Your task to perform on an android device: turn off airplane mode Image 0: 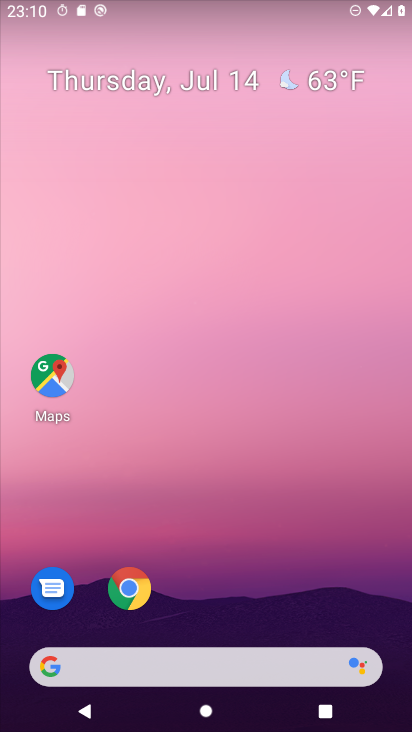
Step 0: drag from (314, 540) to (325, 55)
Your task to perform on an android device: turn off airplane mode Image 1: 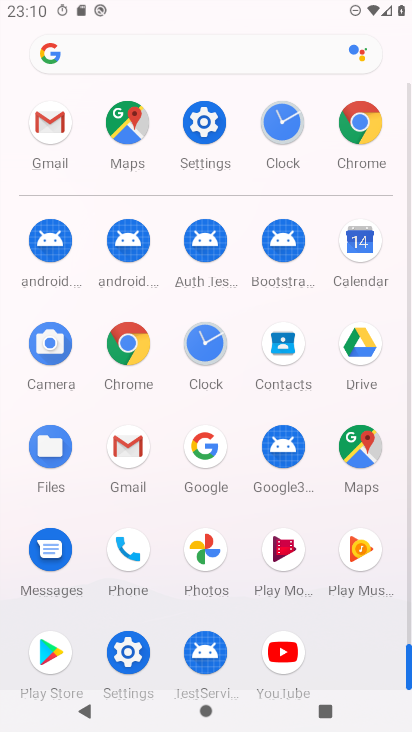
Step 1: click (137, 652)
Your task to perform on an android device: turn off airplane mode Image 2: 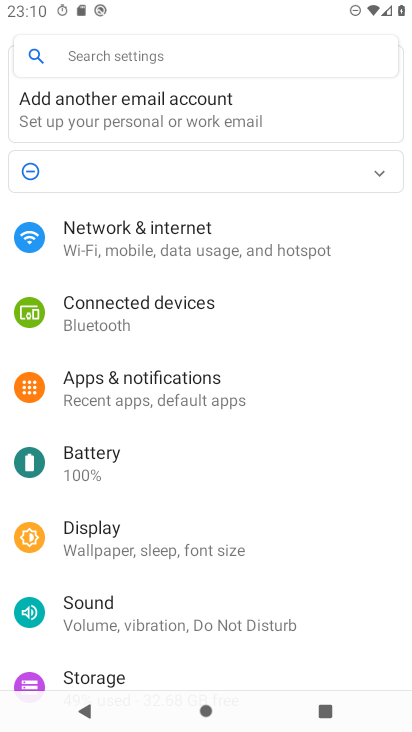
Step 2: drag from (318, 500) to (345, 377)
Your task to perform on an android device: turn off airplane mode Image 3: 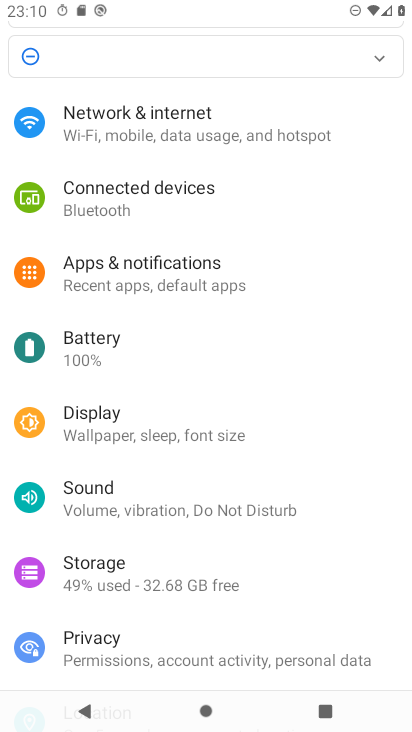
Step 3: drag from (339, 543) to (348, 381)
Your task to perform on an android device: turn off airplane mode Image 4: 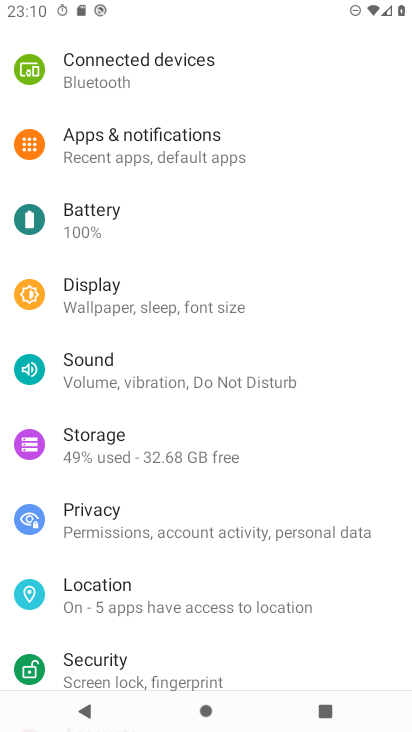
Step 4: drag from (354, 615) to (359, 509)
Your task to perform on an android device: turn off airplane mode Image 5: 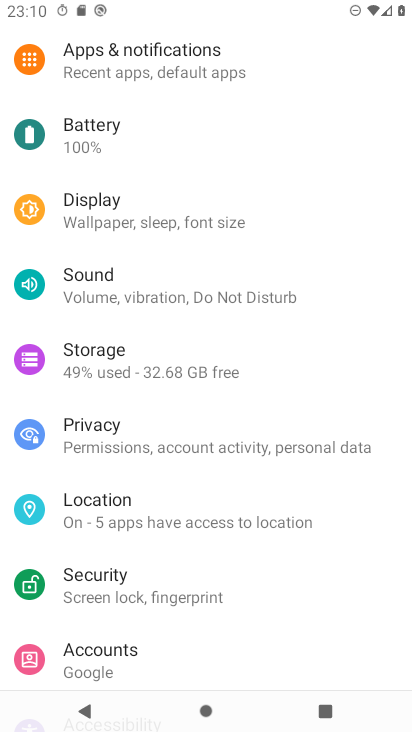
Step 5: drag from (351, 599) to (354, 470)
Your task to perform on an android device: turn off airplane mode Image 6: 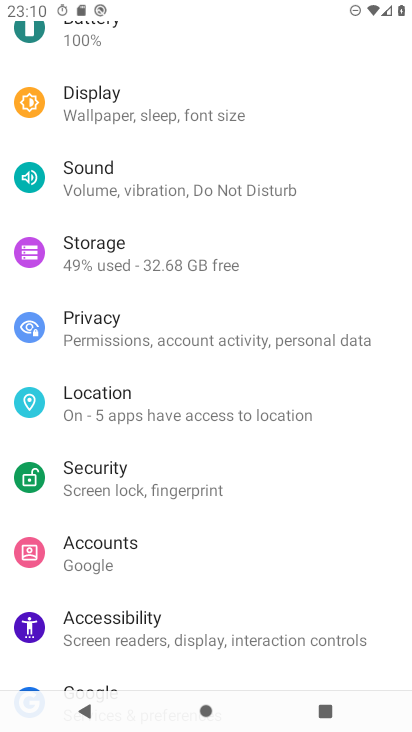
Step 6: drag from (344, 560) to (345, 467)
Your task to perform on an android device: turn off airplane mode Image 7: 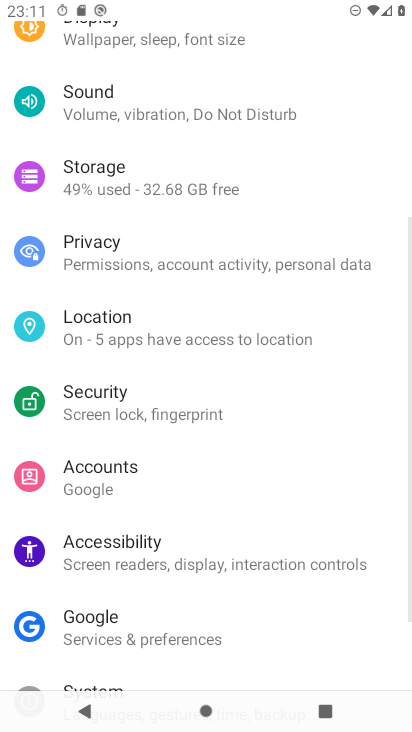
Step 7: drag from (370, 613) to (371, 455)
Your task to perform on an android device: turn off airplane mode Image 8: 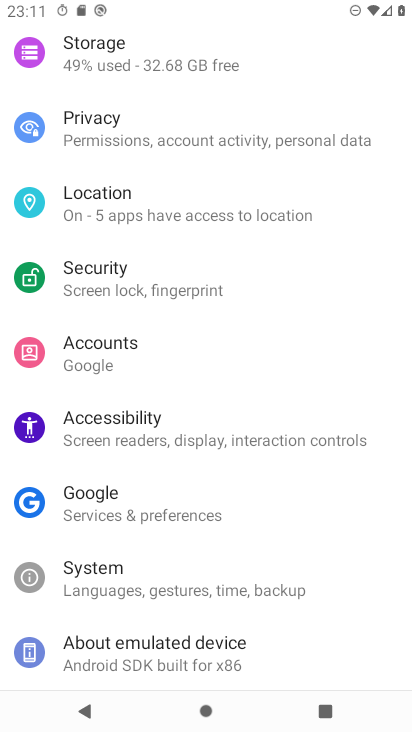
Step 8: drag from (371, 367) to (358, 443)
Your task to perform on an android device: turn off airplane mode Image 9: 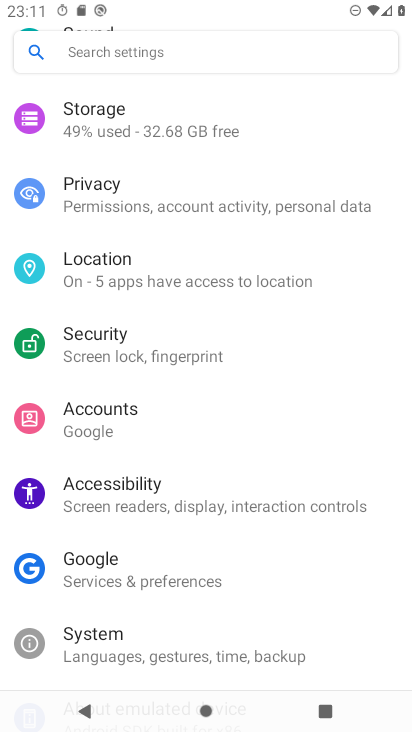
Step 9: drag from (367, 333) to (359, 405)
Your task to perform on an android device: turn off airplane mode Image 10: 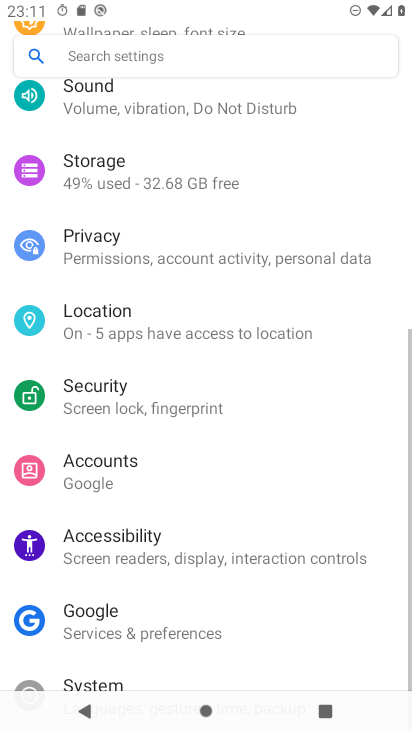
Step 10: drag from (366, 322) to (362, 400)
Your task to perform on an android device: turn off airplane mode Image 11: 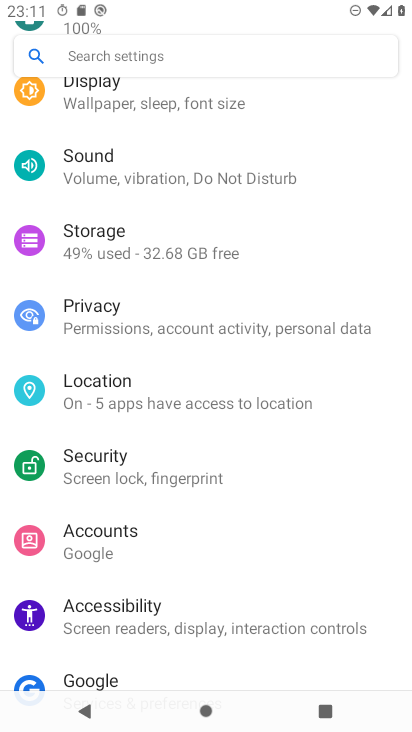
Step 11: drag from (372, 298) to (371, 372)
Your task to perform on an android device: turn off airplane mode Image 12: 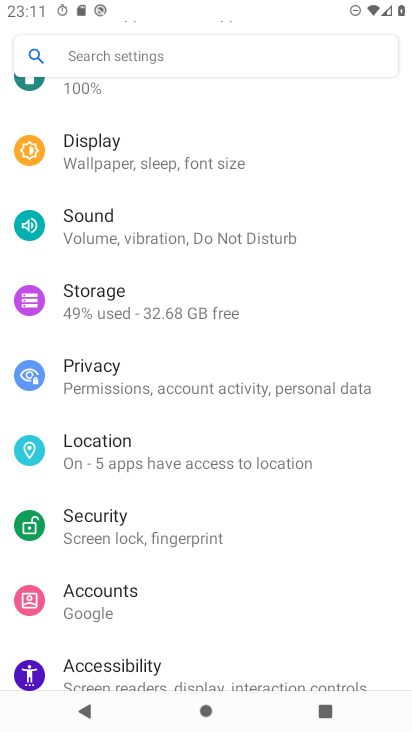
Step 12: drag from (385, 282) to (372, 347)
Your task to perform on an android device: turn off airplane mode Image 13: 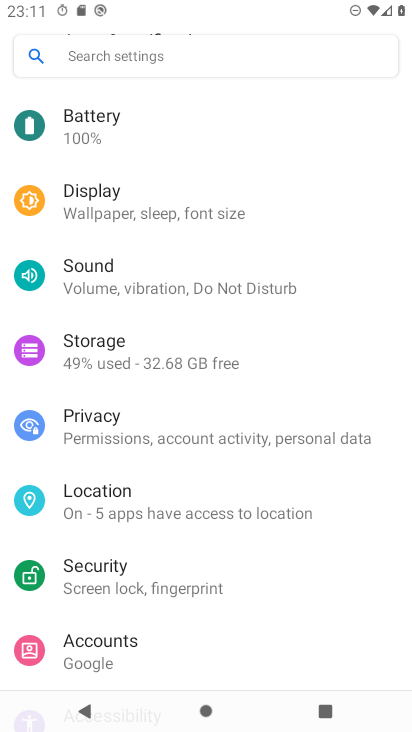
Step 13: drag from (365, 295) to (362, 378)
Your task to perform on an android device: turn off airplane mode Image 14: 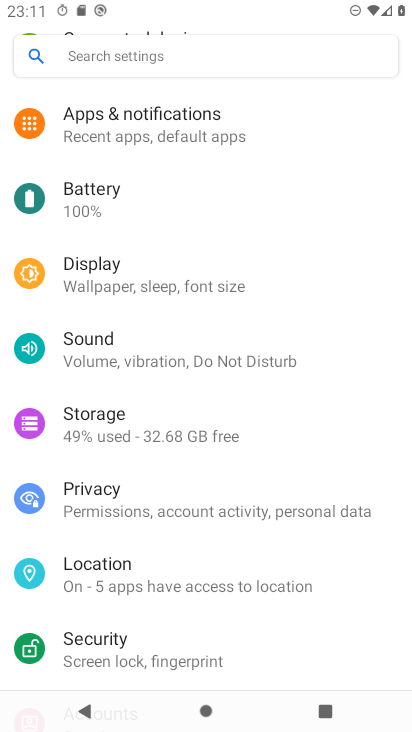
Step 14: drag from (368, 285) to (357, 416)
Your task to perform on an android device: turn off airplane mode Image 15: 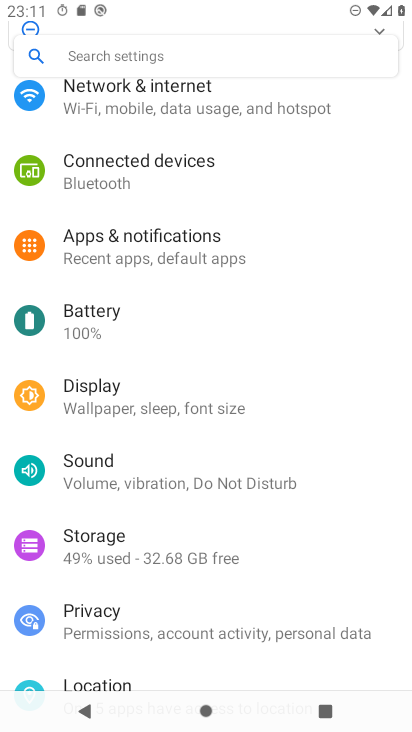
Step 15: drag from (358, 306) to (358, 399)
Your task to perform on an android device: turn off airplane mode Image 16: 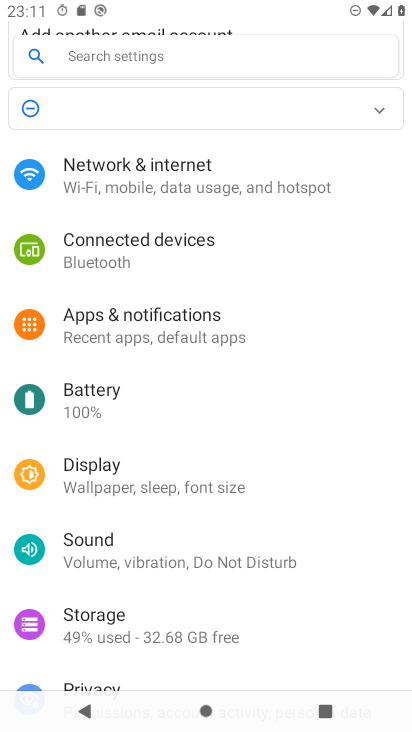
Step 16: drag from (366, 302) to (366, 388)
Your task to perform on an android device: turn off airplane mode Image 17: 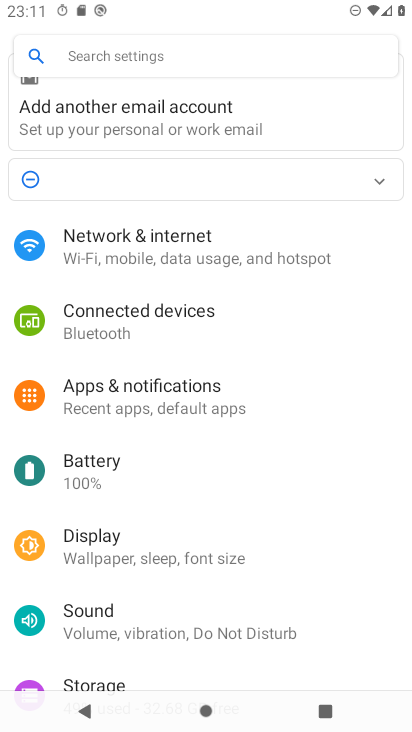
Step 17: drag from (374, 284) to (362, 392)
Your task to perform on an android device: turn off airplane mode Image 18: 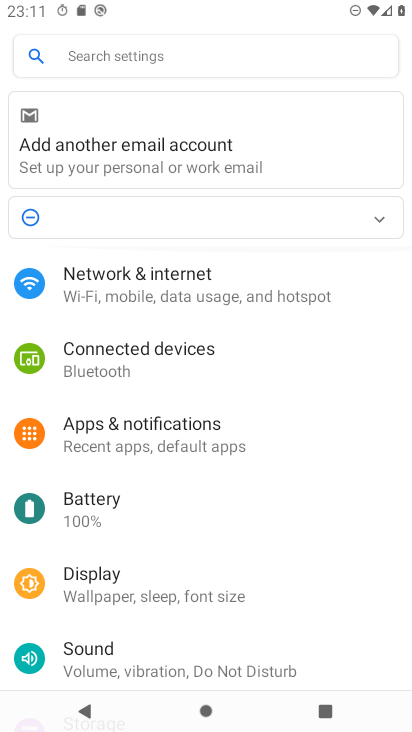
Step 18: click (323, 304)
Your task to perform on an android device: turn off airplane mode Image 19: 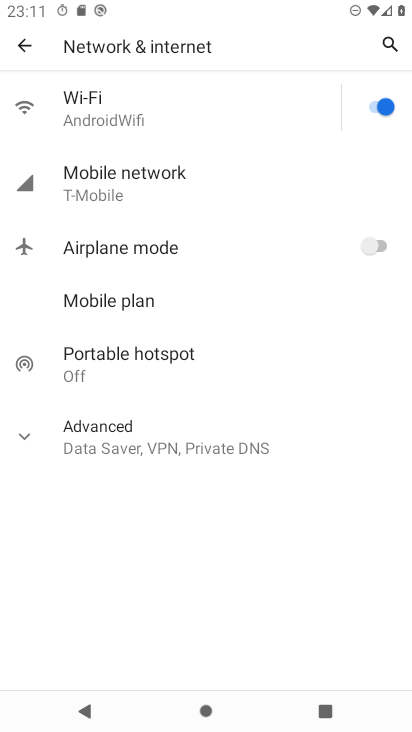
Step 19: task complete